Your task to perform on an android device: What's the latest news in space science? Image 0: 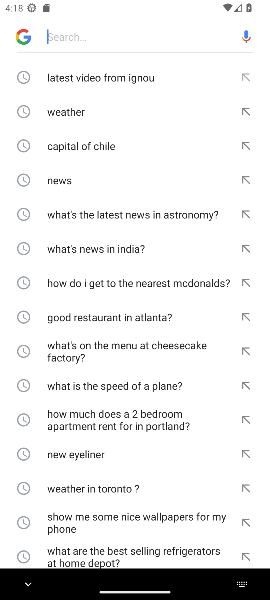
Step 0: click (124, 37)
Your task to perform on an android device: What's the latest news in space science? Image 1: 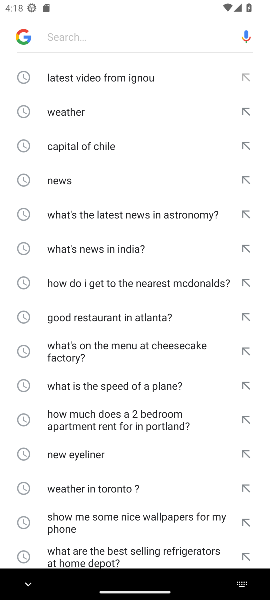
Step 1: type "space science "
Your task to perform on an android device: What's the latest news in space science? Image 2: 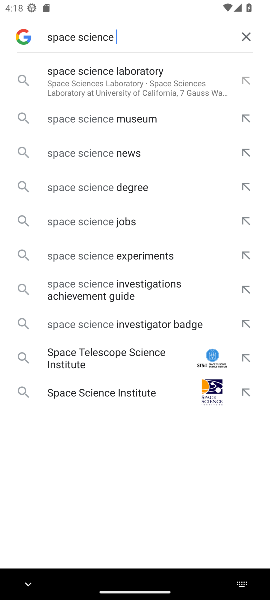
Step 2: click (84, 156)
Your task to perform on an android device: What's the latest news in space science? Image 3: 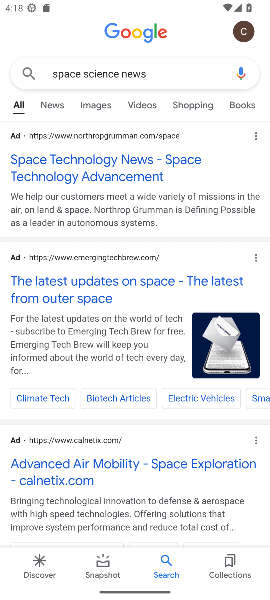
Step 3: click (44, 113)
Your task to perform on an android device: What's the latest news in space science? Image 4: 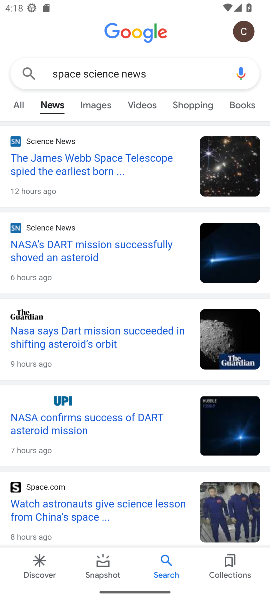
Step 4: click (41, 249)
Your task to perform on an android device: What's the latest news in space science? Image 5: 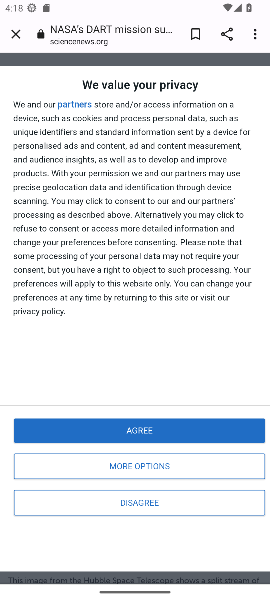
Step 5: drag from (204, 279) to (214, 594)
Your task to perform on an android device: What's the latest news in space science? Image 6: 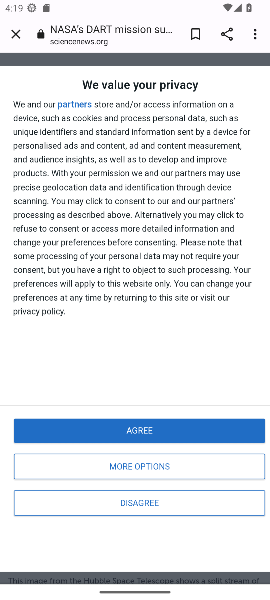
Step 6: drag from (138, 287) to (167, 12)
Your task to perform on an android device: What's the latest news in space science? Image 7: 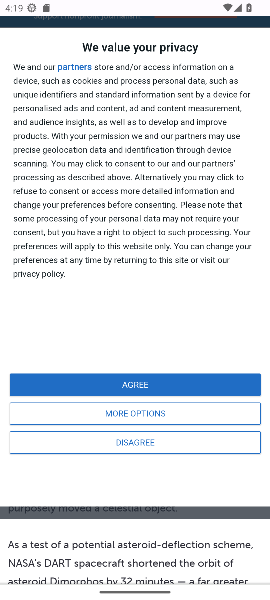
Step 7: click (130, 388)
Your task to perform on an android device: What's the latest news in space science? Image 8: 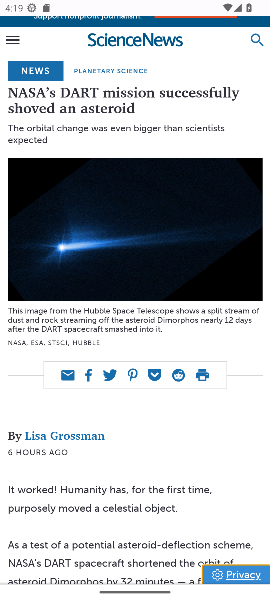
Step 8: task complete